Your task to perform on an android device: change the clock display to digital Image 0: 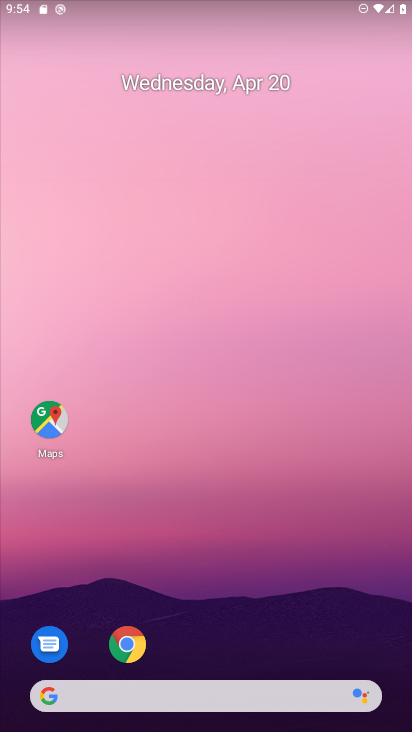
Step 0: drag from (351, 631) to (231, 188)
Your task to perform on an android device: change the clock display to digital Image 1: 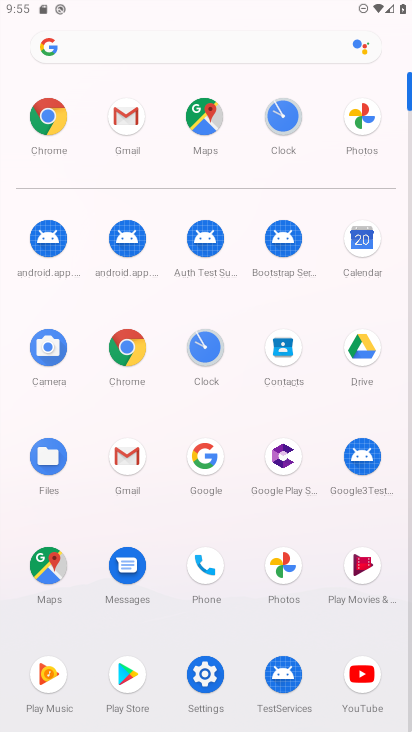
Step 1: click (205, 338)
Your task to perform on an android device: change the clock display to digital Image 2: 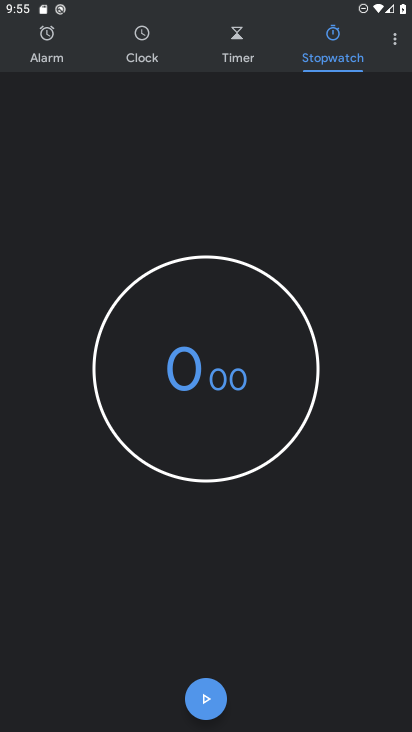
Step 2: click (391, 35)
Your task to perform on an android device: change the clock display to digital Image 3: 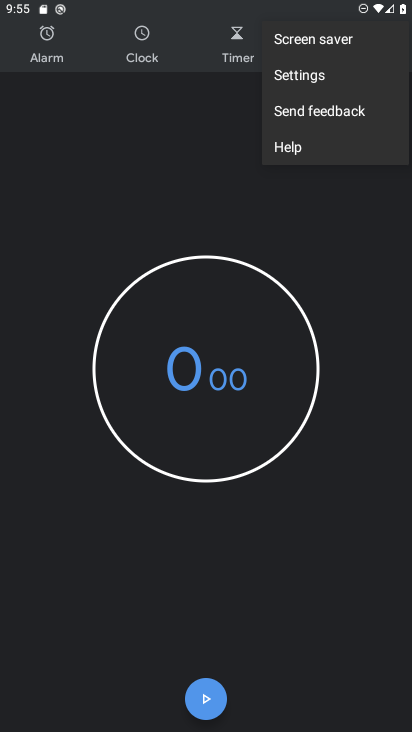
Step 3: click (315, 83)
Your task to perform on an android device: change the clock display to digital Image 4: 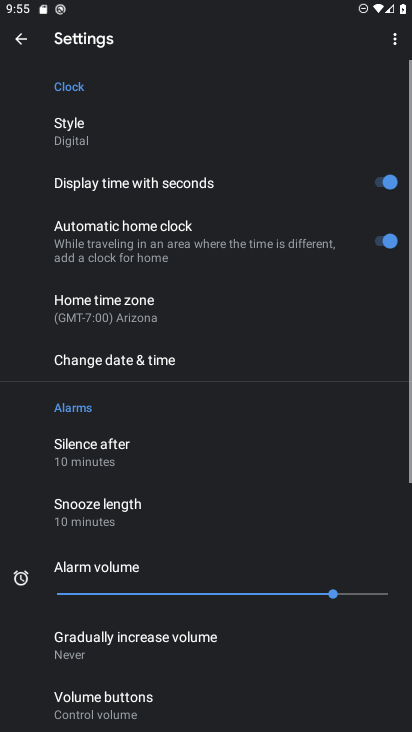
Step 4: click (104, 143)
Your task to perform on an android device: change the clock display to digital Image 5: 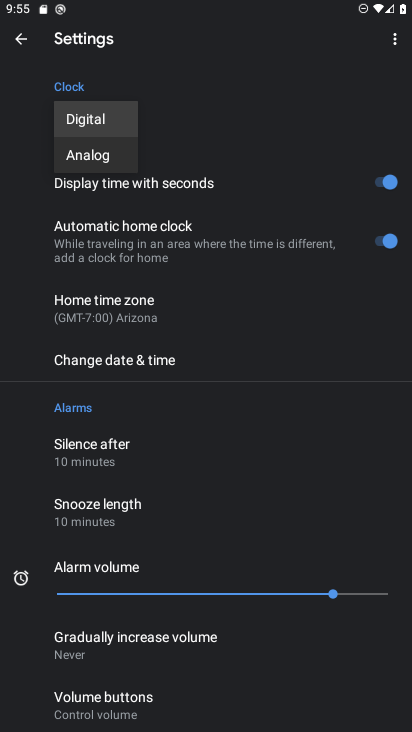
Step 5: click (122, 124)
Your task to perform on an android device: change the clock display to digital Image 6: 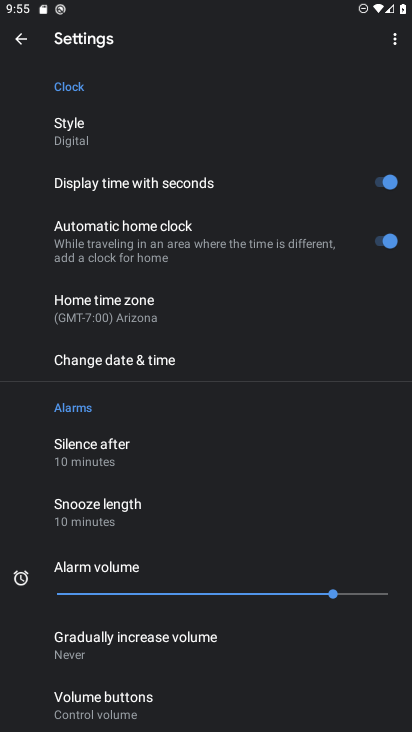
Step 6: task complete